Your task to perform on an android device: Open the stopwatch Image 0: 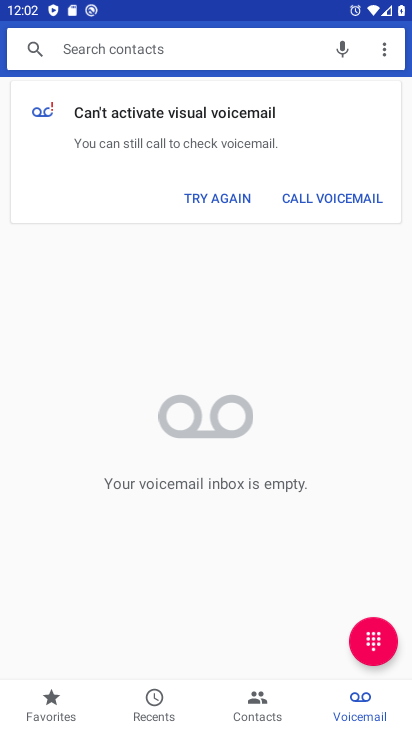
Step 0: press home button
Your task to perform on an android device: Open the stopwatch Image 1: 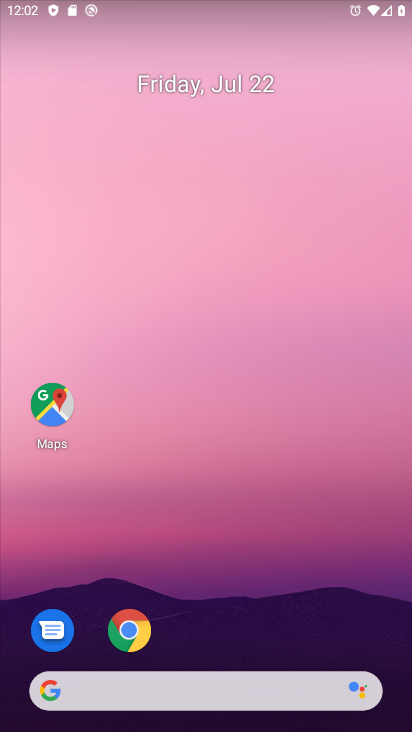
Step 1: drag from (255, 634) to (94, 68)
Your task to perform on an android device: Open the stopwatch Image 2: 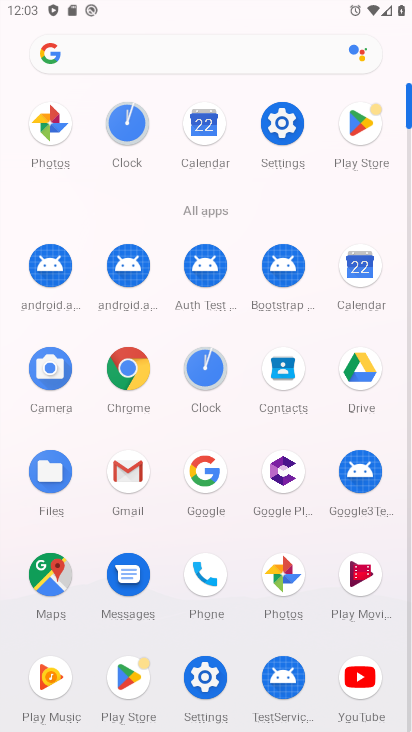
Step 2: click (211, 374)
Your task to perform on an android device: Open the stopwatch Image 3: 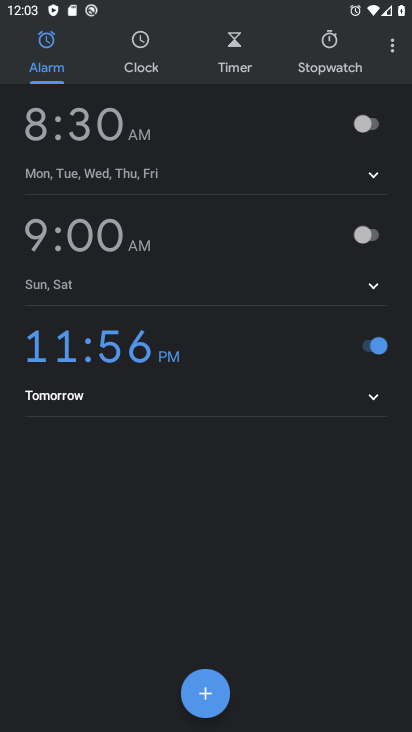
Step 3: click (334, 44)
Your task to perform on an android device: Open the stopwatch Image 4: 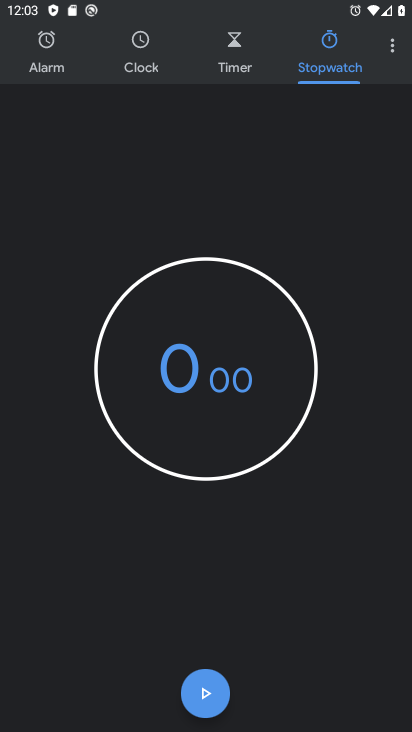
Step 4: task complete